Your task to perform on an android device: turn off translation in the chrome app Image 0: 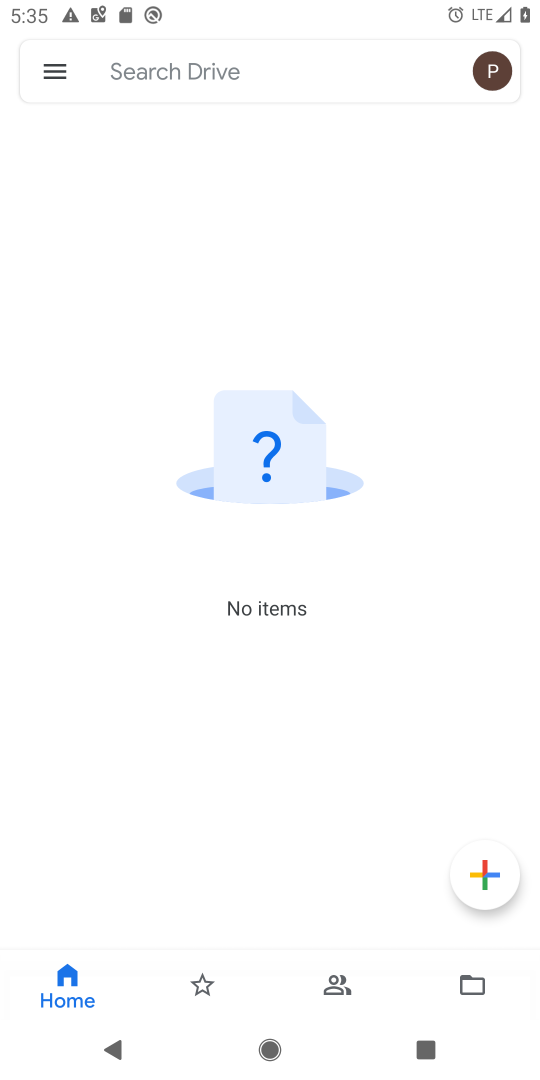
Step 0: press back button
Your task to perform on an android device: turn off translation in the chrome app Image 1: 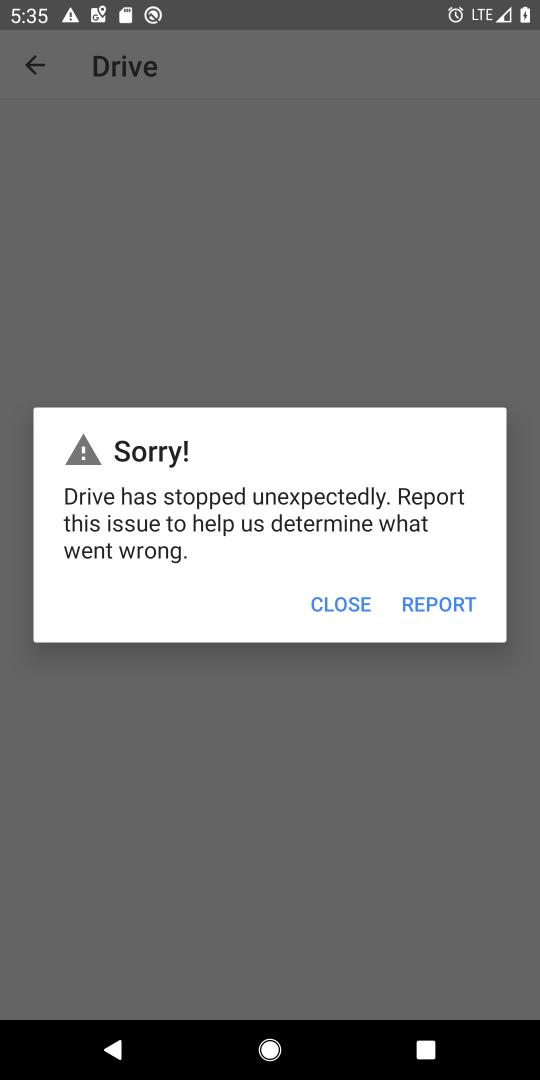
Step 1: press back button
Your task to perform on an android device: turn off translation in the chrome app Image 2: 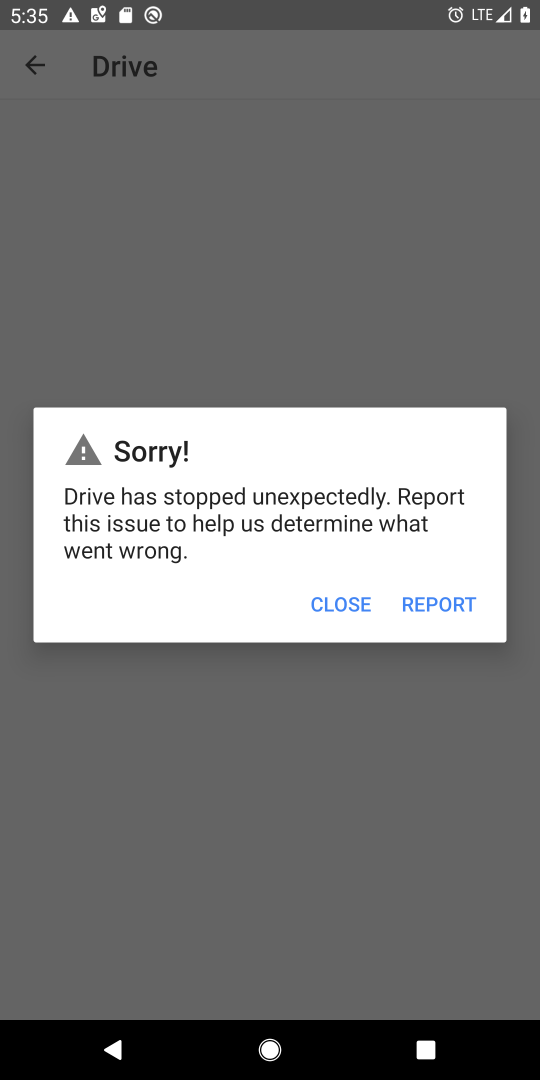
Step 2: press home button
Your task to perform on an android device: turn off translation in the chrome app Image 3: 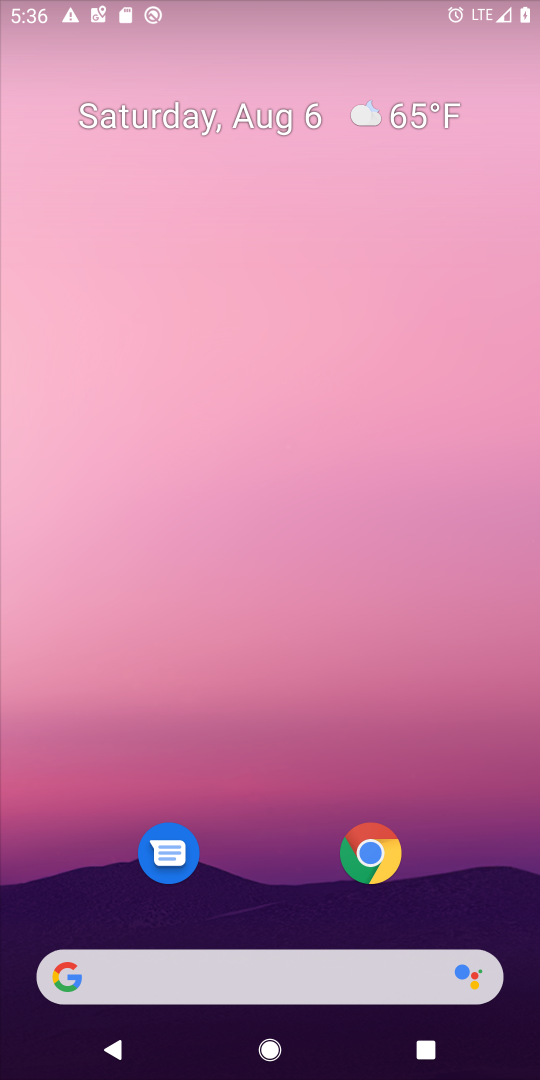
Step 3: click (362, 861)
Your task to perform on an android device: turn off translation in the chrome app Image 4: 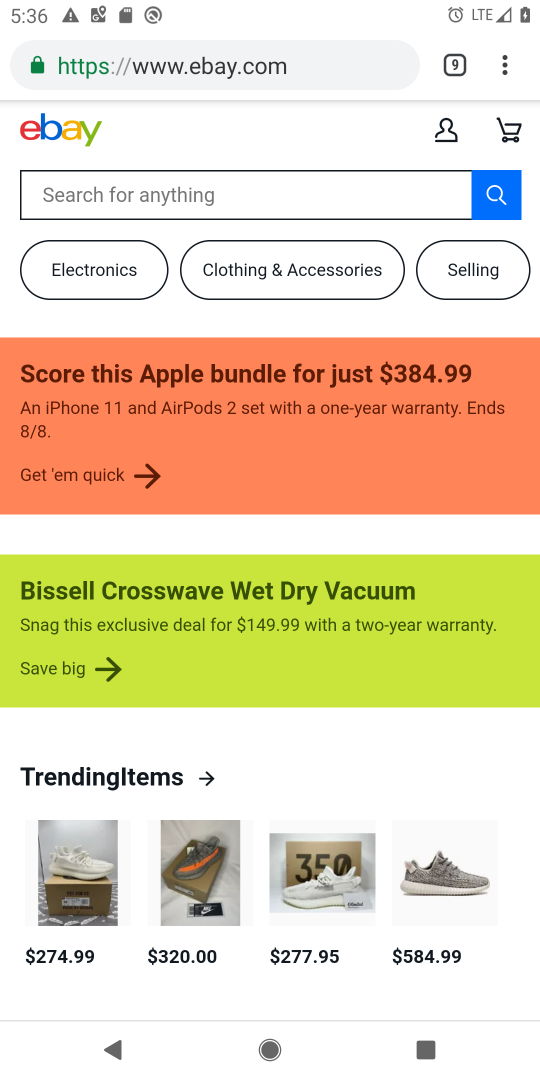
Step 4: drag from (500, 56) to (279, 786)
Your task to perform on an android device: turn off translation in the chrome app Image 5: 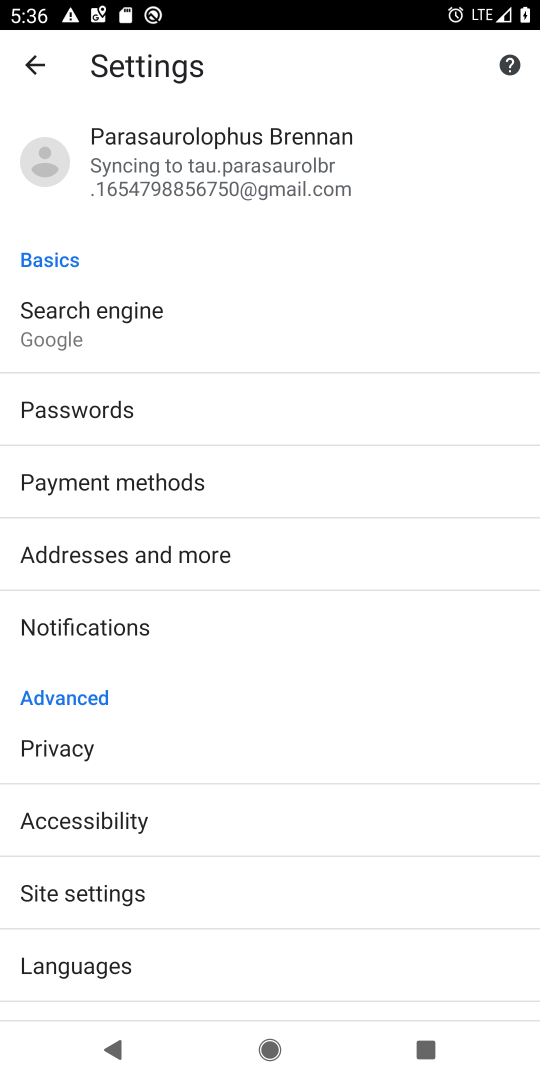
Step 5: click (61, 962)
Your task to perform on an android device: turn off translation in the chrome app Image 6: 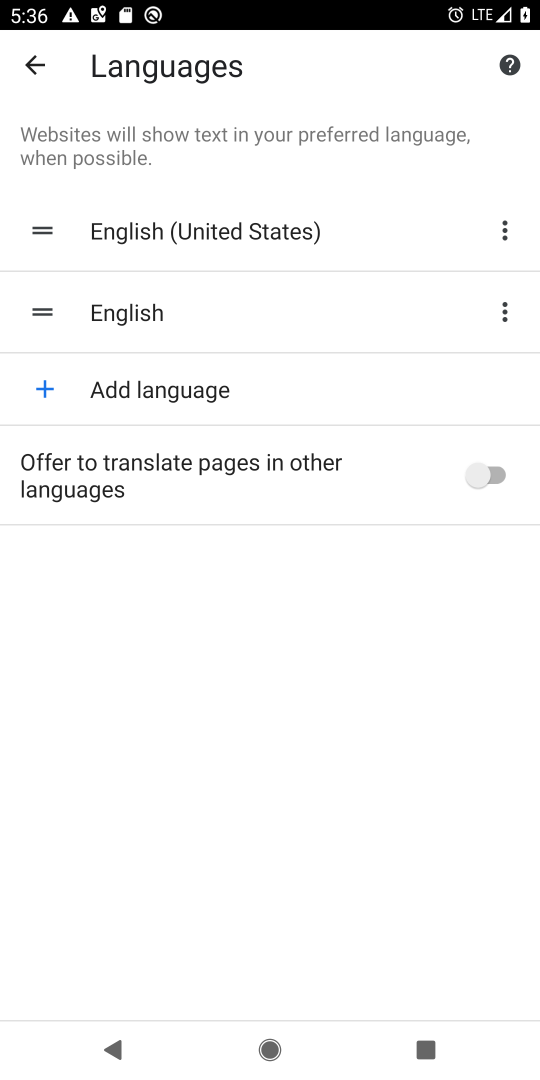
Step 6: task complete